Your task to perform on an android device: Go to Maps Image 0: 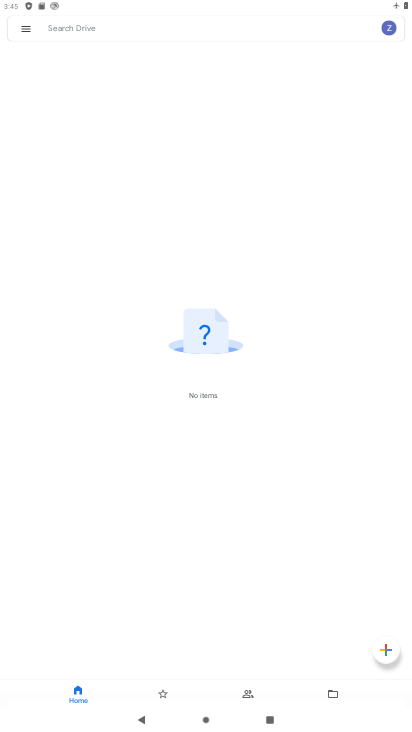
Step 0: press home button
Your task to perform on an android device: Go to Maps Image 1: 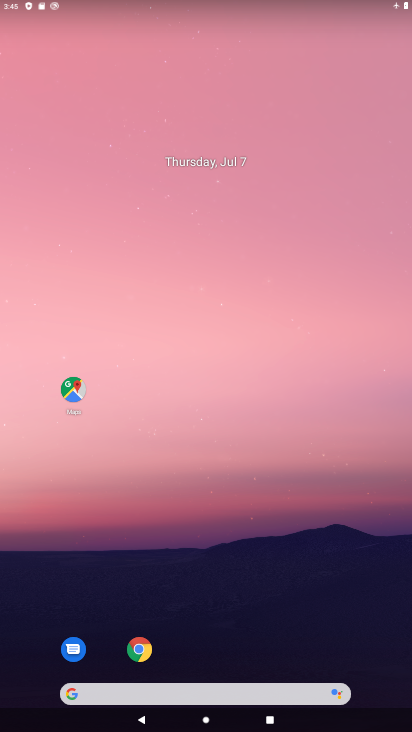
Step 1: drag from (218, 616) to (244, 161)
Your task to perform on an android device: Go to Maps Image 2: 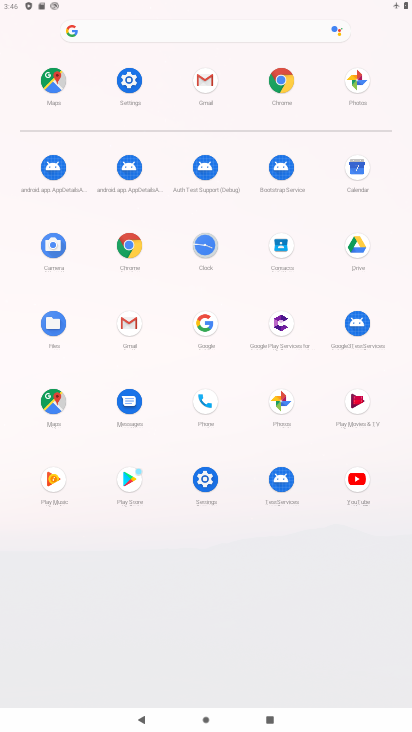
Step 2: click (58, 407)
Your task to perform on an android device: Go to Maps Image 3: 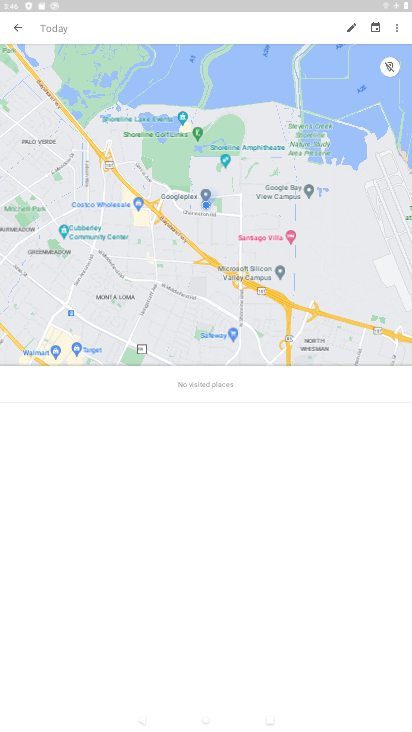
Step 3: task complete